Your task to perform on an android device: toggle pop-ups in chrome Image 0: 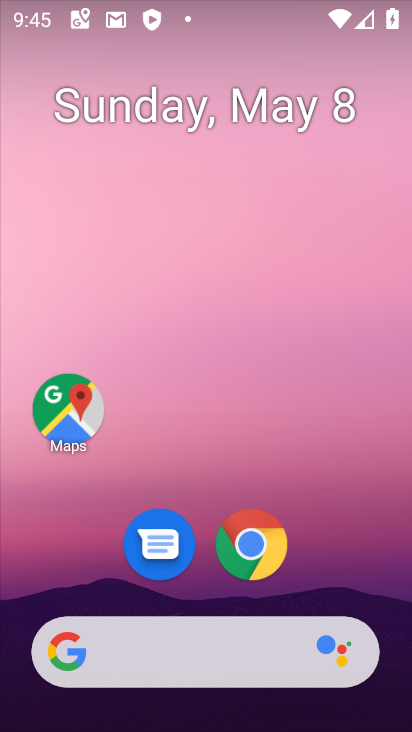
Step 0: click (262, 548)
Your task to perform on an android device: toggle pop-ups in chrome Image 1: 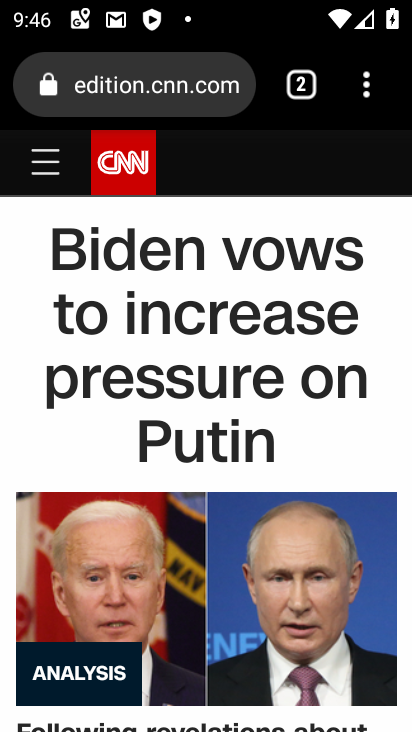
Step 1: click (371, 86)
Your task to perform on an android device: toggle pop-ups in chrome Image 2: 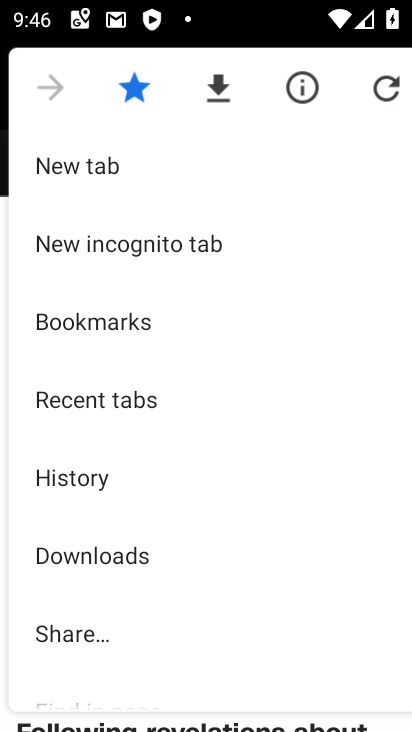
Step 2: drag from (239, 639) to (237, 273)
Your task to perform on an android device: toggle pop-ups in chrome Image 3: 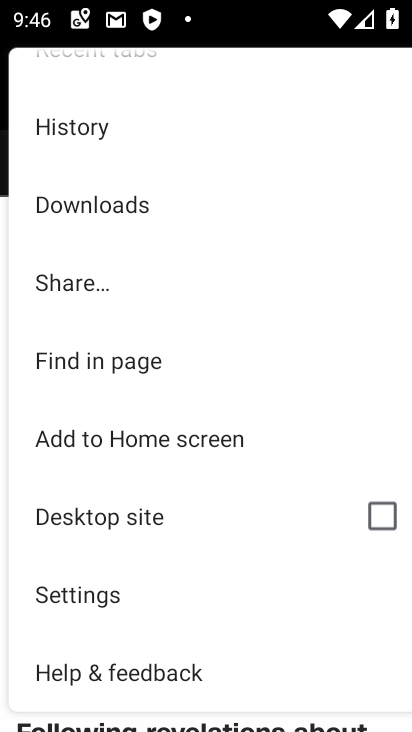
Step 3: click (228, 613)
Your task to perform on an android device: toggle pop-ups in chrome Image 4: 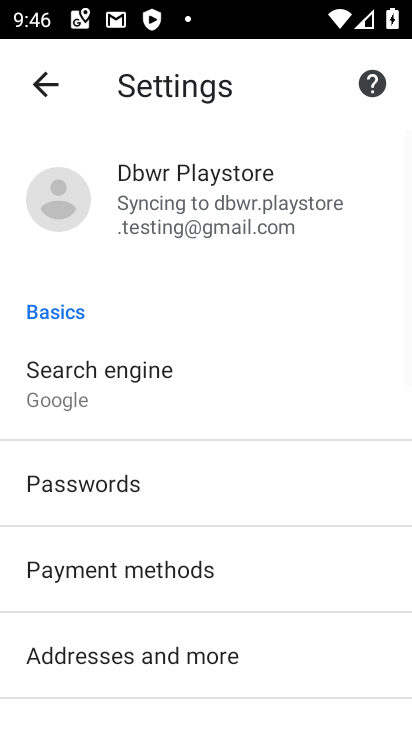
Step 4: drag from (230, 535) to (237, 174)
Your task to perform on an android device: toggle pop-ups in chrome Image 5: 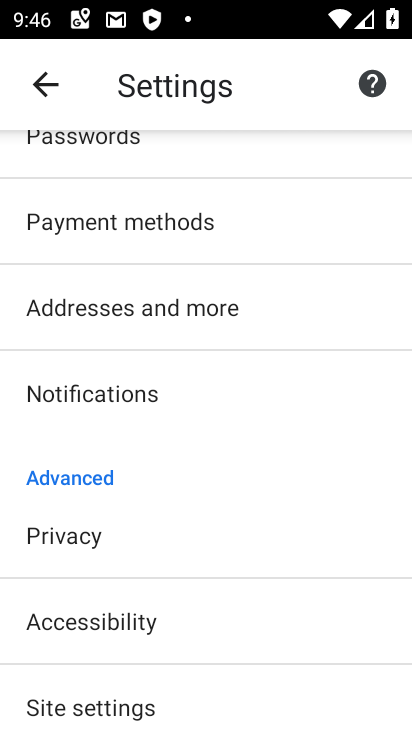
Step 5: drag from (239, 571) to (292, 280)
Your task to perform on an android device: toggle pop-ups in chrome Image 6: 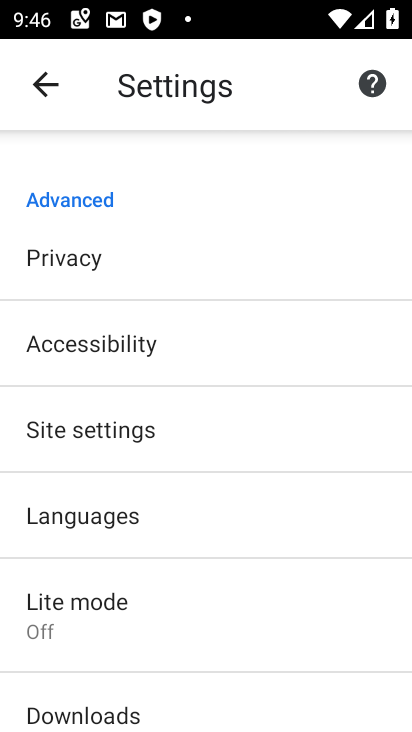
Step 6: click (287, 443)
Your task to perform on an android device: toggle pop-ups in chrome Image 7: 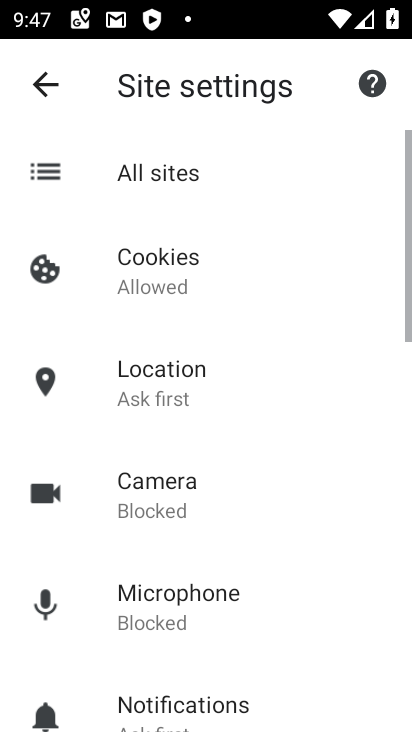
Step 7: drag from (281, 627) to (285, 385)
Your task to perform on an android device: toggle pop-ups in chrome Image 8: 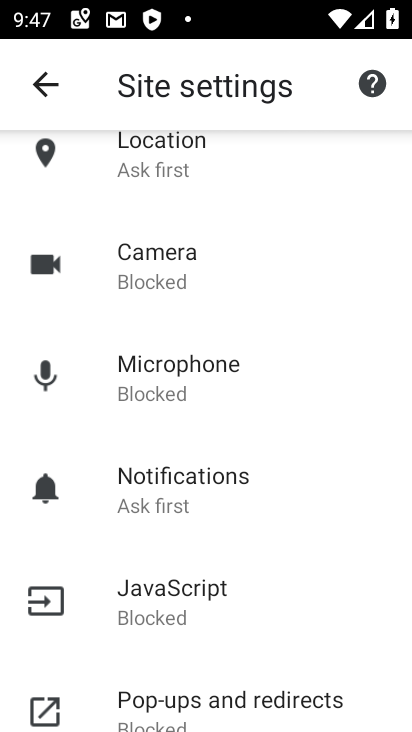
Step 8: click (207, 715)
Your task to perform on an android device: toggle pop-ups in chrome Image 9: 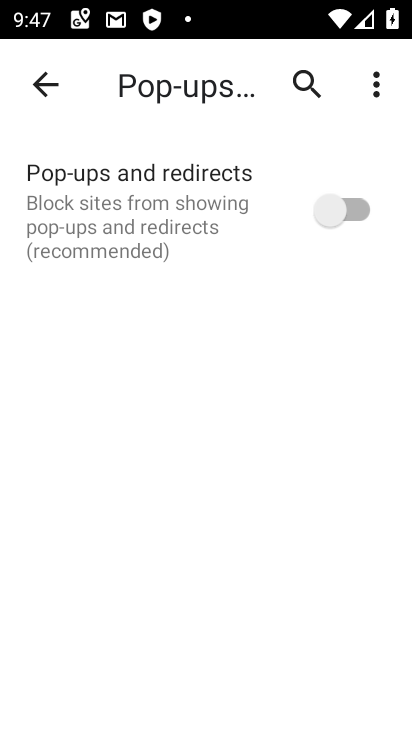
Step 9: click (318, 217)
Your task to perform on an android device: toggle pop-ups in chrome Image 10: 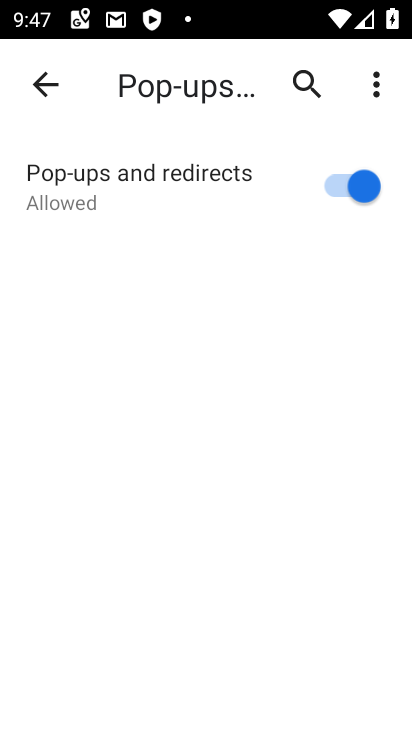
Step 10: task complete